Your task to perform on an android device: Do I have any events this weekend? Image 0: 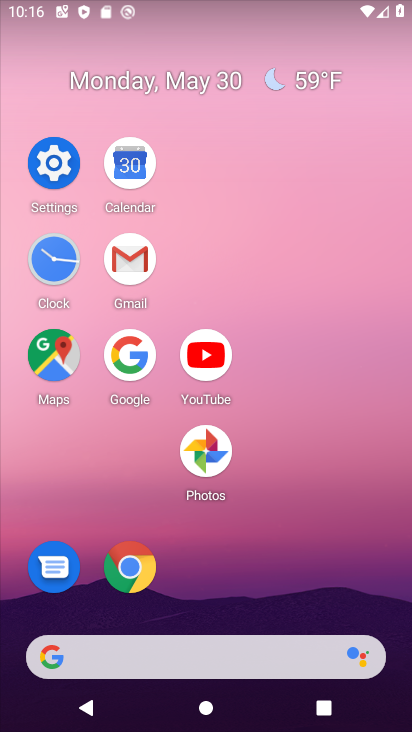
Step 0: click (132, 167)
Your task to perform on an android device: Do I have any events this weekend? Image 1: 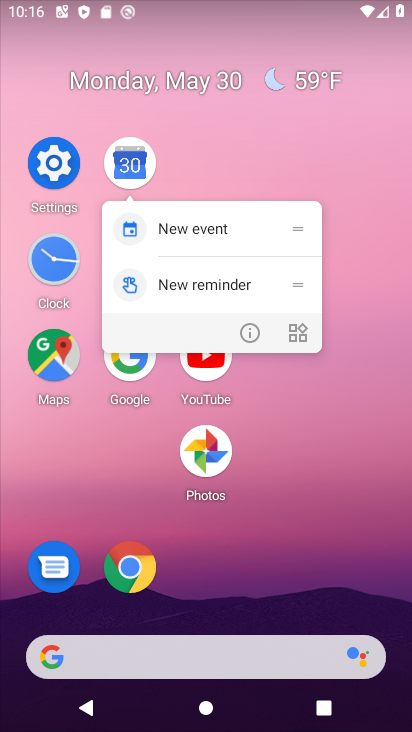
Step 1: click (132, 167)
Your task to perform on an android device: Do I have any events this weekend? Image 2: 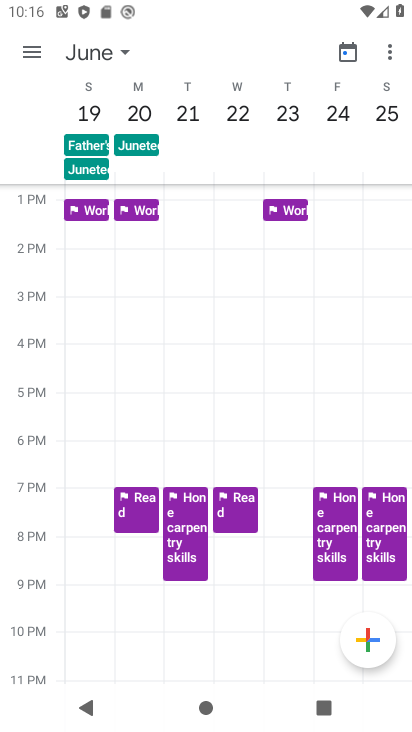
Step 2: click (118, 57)
Your task to perform on an android device: Do I have any events this weekend? Image 3: 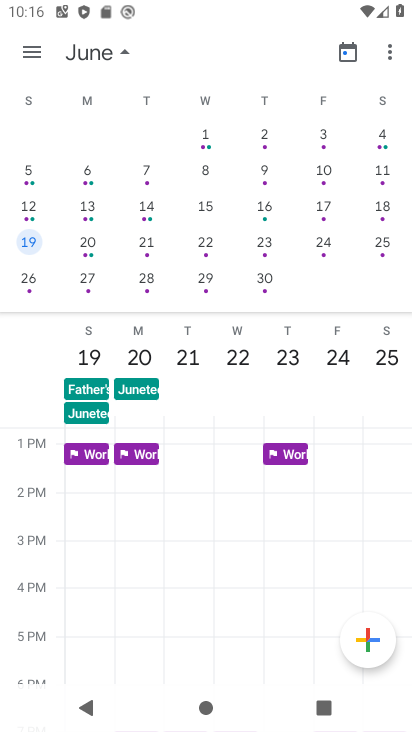
Step 3: drag from (86, 227) to (393, 165)
Your task to perform on an android device: Do I have any events this weekend? Image 4: 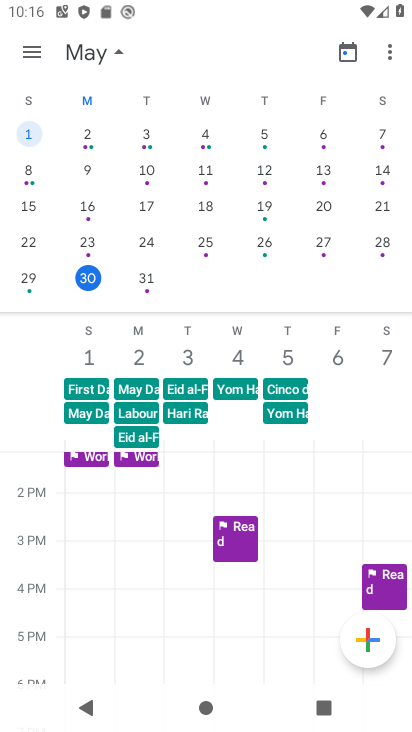
Step 4: click (28, 63)
Your task to perform on an android device: Do I have any events this weekend? Image 5: 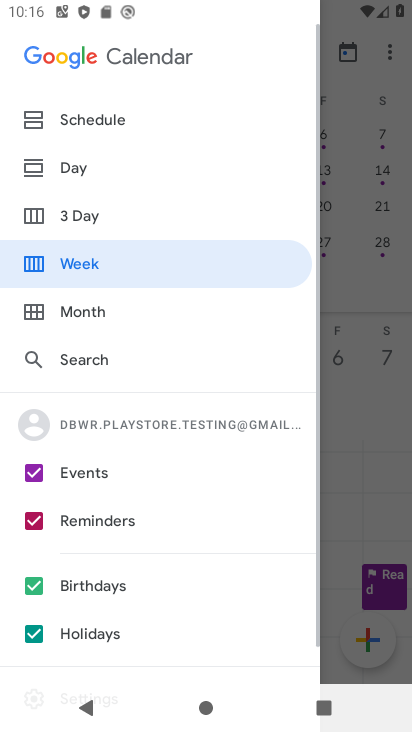
Step 5: click (146, 266)
Your task to perform on an android device: Do I have any events this weekend? Image 6: 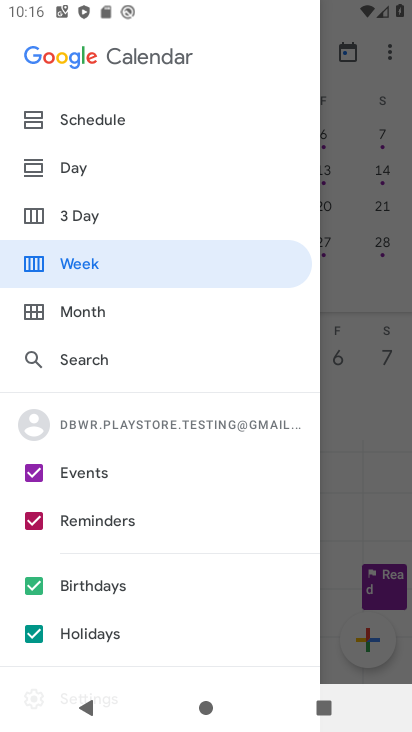
Step 6: click (201, 261)
Your task to perform on an android device: Do I have any events this weekend? Image 7: 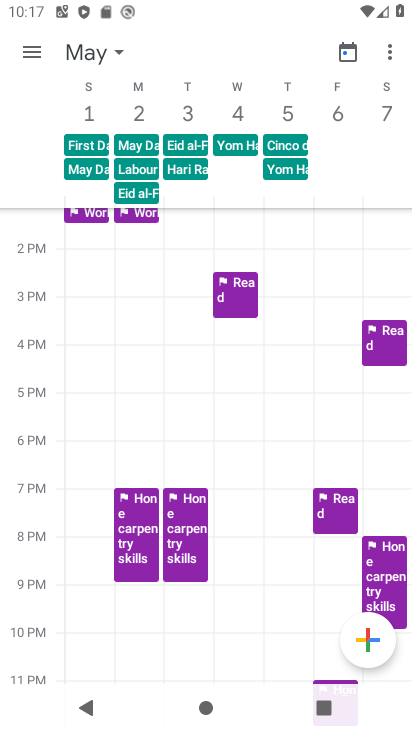
Step 7: task complete